Your task to perform on an android device: Search for seafood restaurants on Google Maps Image 0: 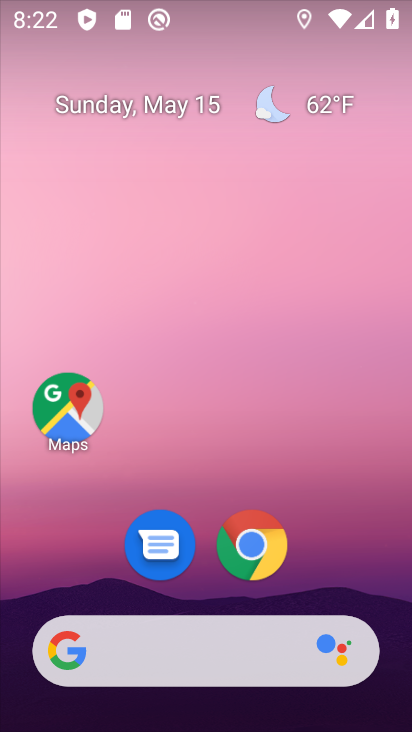
Step 0: click (71, 417)
Your task to perform on an android device: Search for seafood restaurants on Google Maps Image 1: 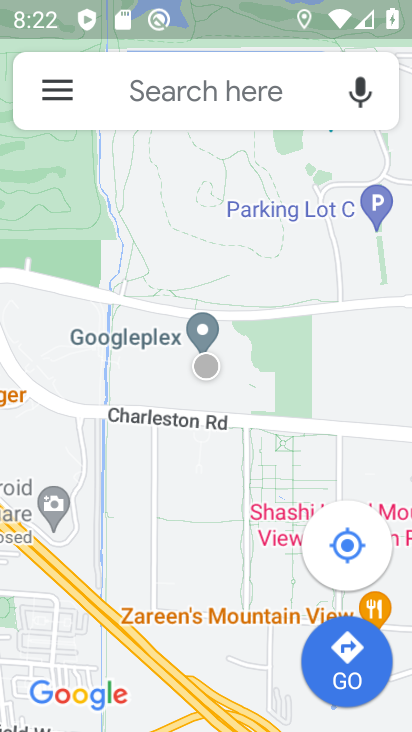
Step 1: click (188, 78)
Your task to perform on an android device: Search for seafood restaurants on Google Maps Image 2: 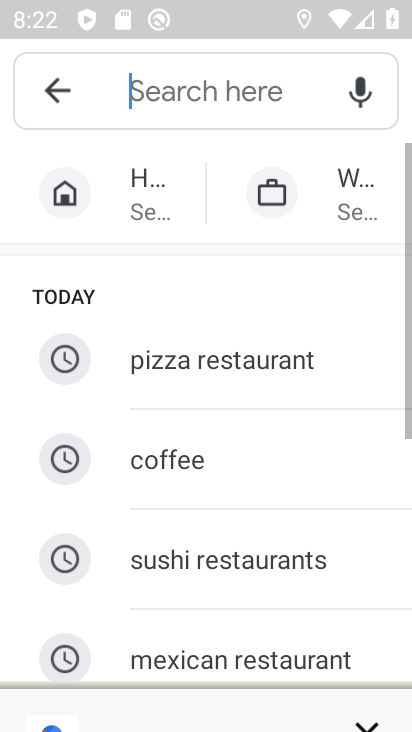
Step 2: click (366, 582)
Your task to perform on an android device: Search for seafood restaurants on Google Maps Image 3: 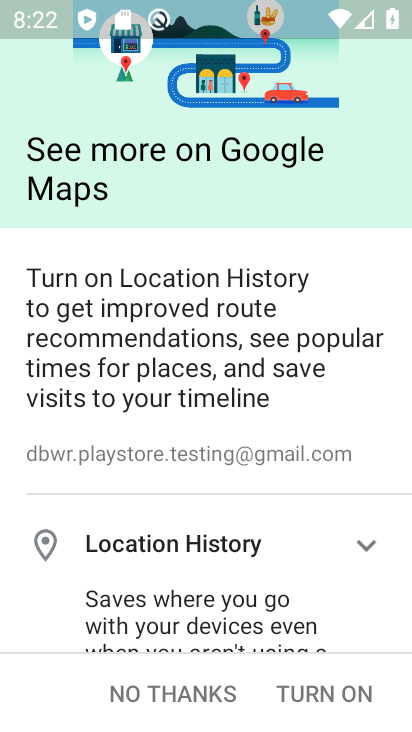
Step 3: click (148, 692)
Your task to perform on an android device: Search for seafood restaurants on Google Maps Image 4: 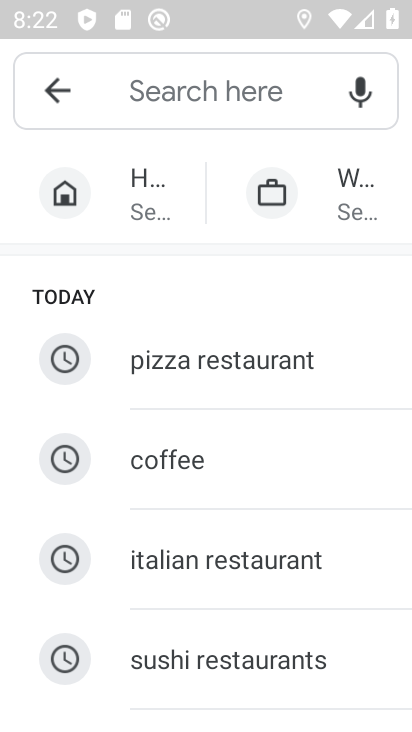
Step 4: click (172, 97)
Your task to perform on an android device: Search for seafood restaurants on Google Maps Image 5: 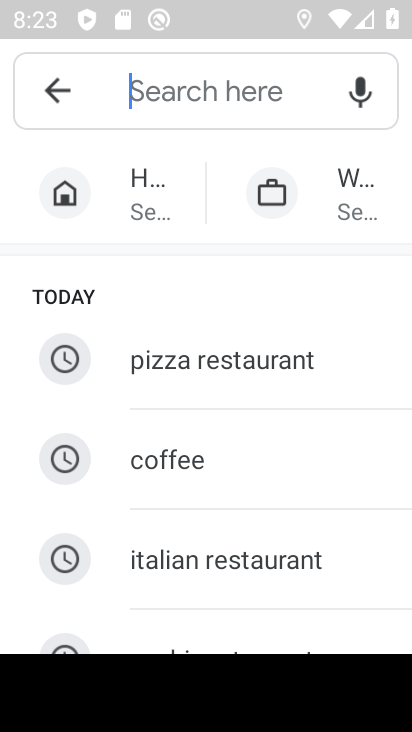
Step 5: type "seafood restaurants"
Your task to perform on an android device: Search for seafood restaurants on Google Maps Image 6: 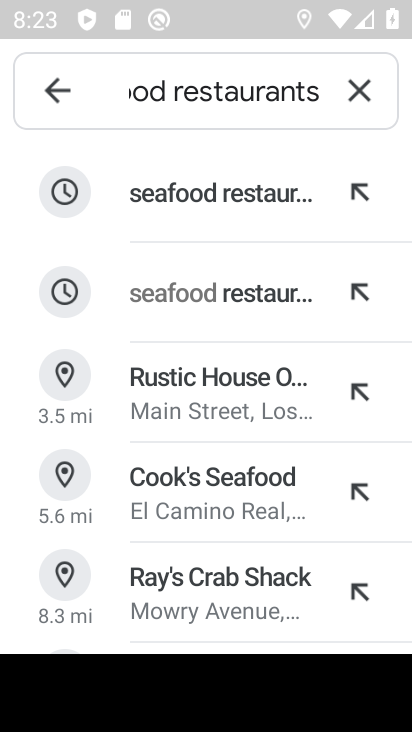
Step 6: click (228, 205)
Your task to perform on an android device: Search for seafood restaurants on Google Maps Image 7: 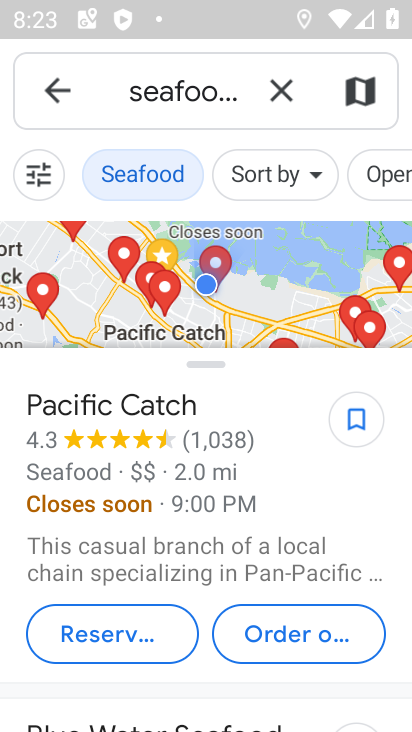
Step 7: task complete